Your task to perform on an android device: turn on bluetooth scan Image 0: 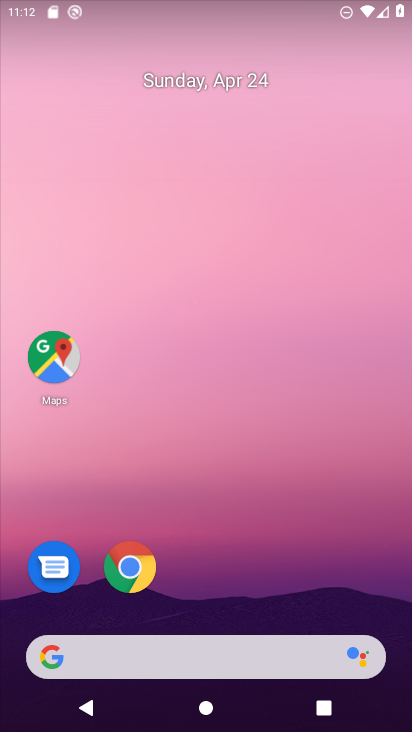
Step 0: drag from (251, 376) to (297, 136)
Your task to perform on an android device: turn on bluetooth scan Image 1: 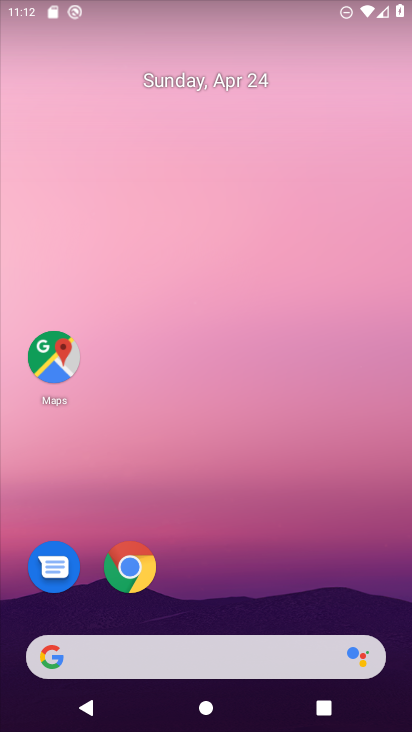
Step 1: drag from (238, 585) to (264, 5)
Your task to perform on an android device: turn on bluetooth scan Image 2: 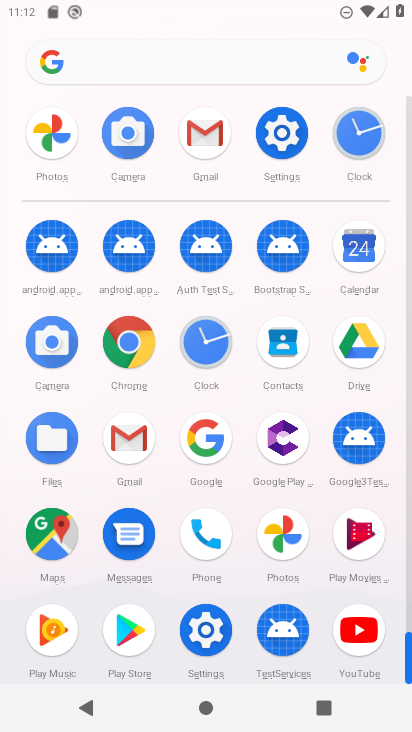
Step 2: click (199, 634)
Your task to perform on an android device: turn on bluetooth scan Image 3: 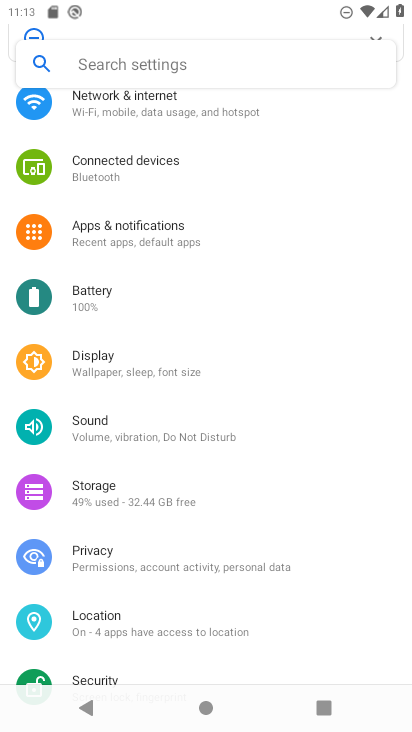
Step 3: drag from (238, 549) to (219, 160)
Your task to perform on an android device: turn on bluetooth scan Image 4: 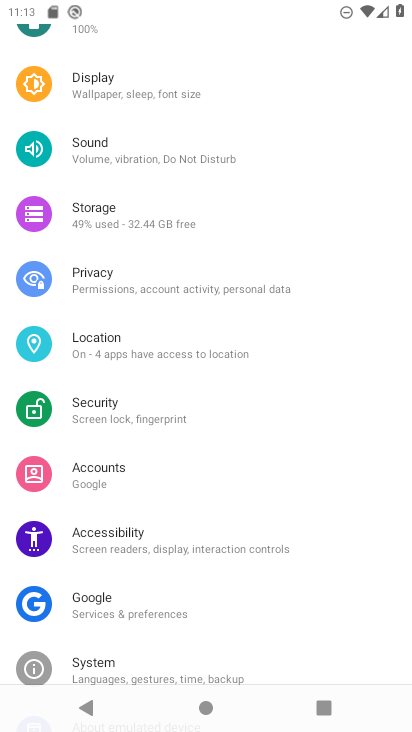
Step 4: drag from (235, 127) to (255, 540)
Your task to perform on an android device: turn on bluetooth scan Image 5: 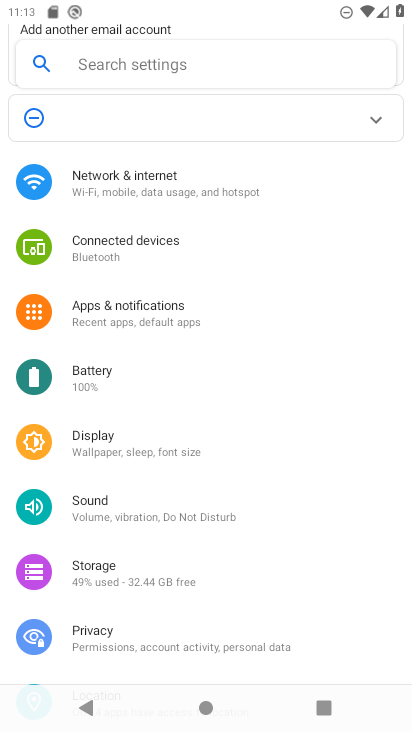
Step 5: drag from (158, 623) to (171, 410)
Your task to perform on an android device: turn on bluetooth scan Image 6: 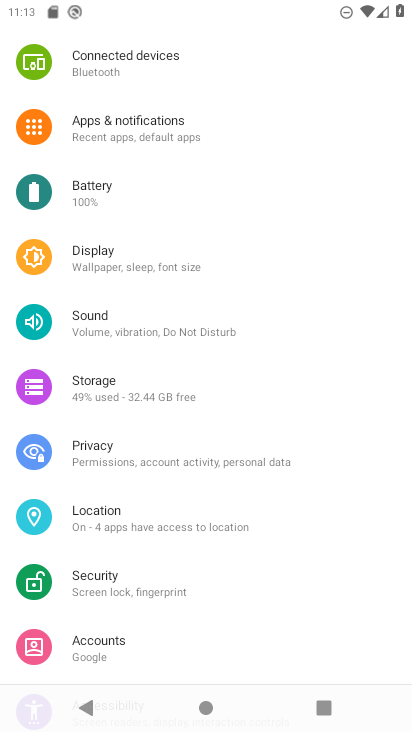
Step 6: click (221, 533)
Your task to perform on an android device: turn on bluetooth scan Image 7: 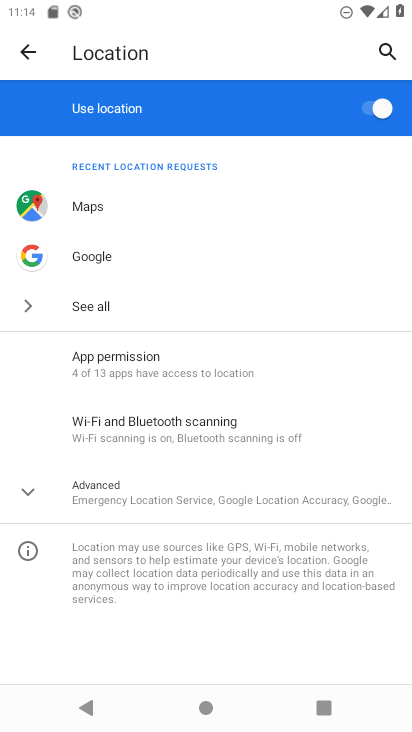
Step 7: click (222, 430)
Your task to perform on an android device: turn on bluetooth scan Image 8: 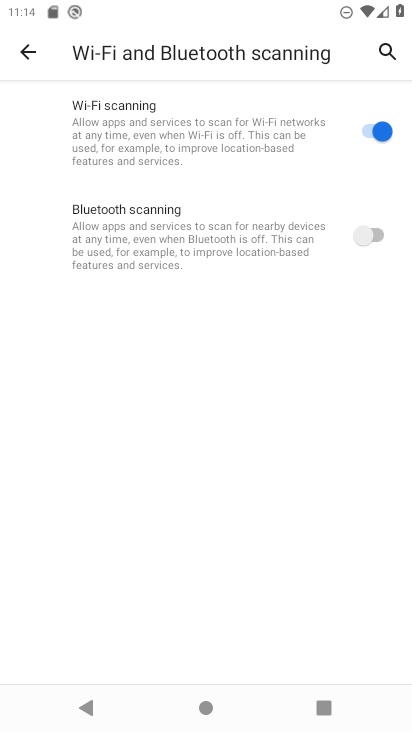
Step 8: click (378, 234)
Your task to perform on an android device: turn on bluetooth scan Image 9: 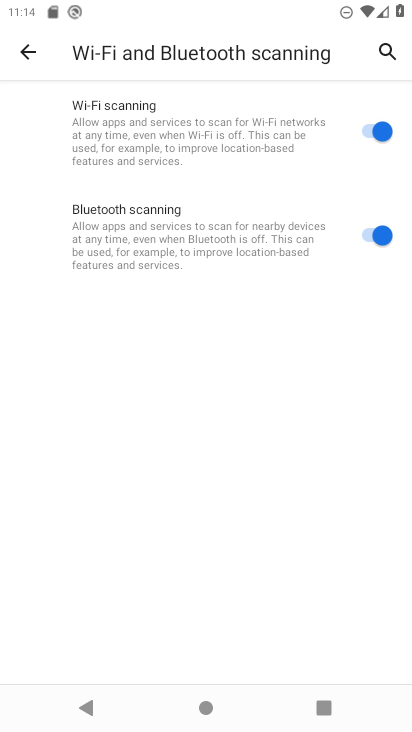
Step 9: task complete